Your task to perform on an android device: turn off improve location accuracy Image 0: 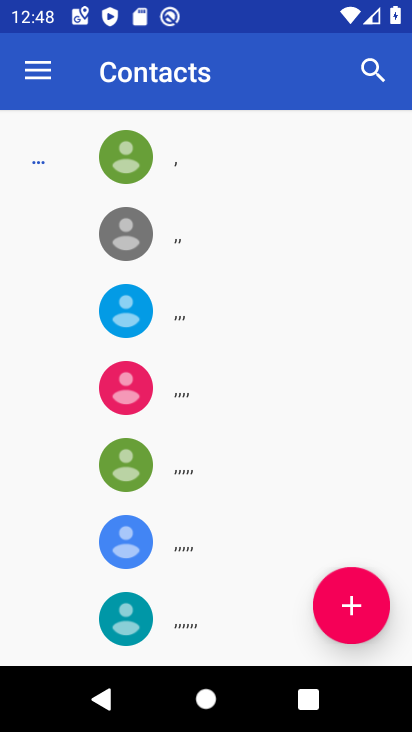
Step 0: press home button
Your task to perform on an android device: turn off improve location accuracy Image 1: 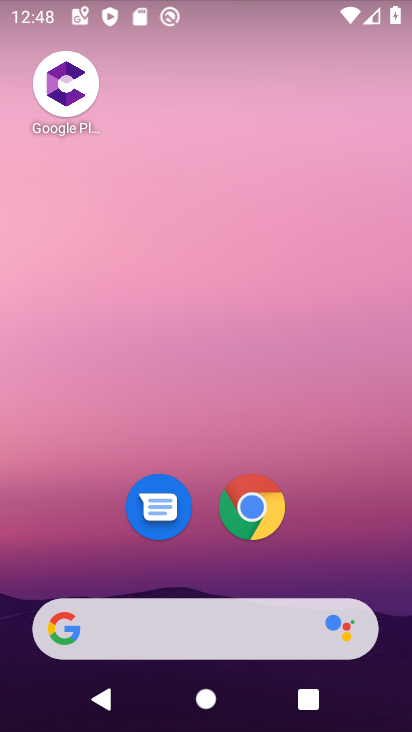
Step 1: drag from (396, 539) to (303, 48)
Your task to perform on an android device: turn off improve location accuracy Image 2: 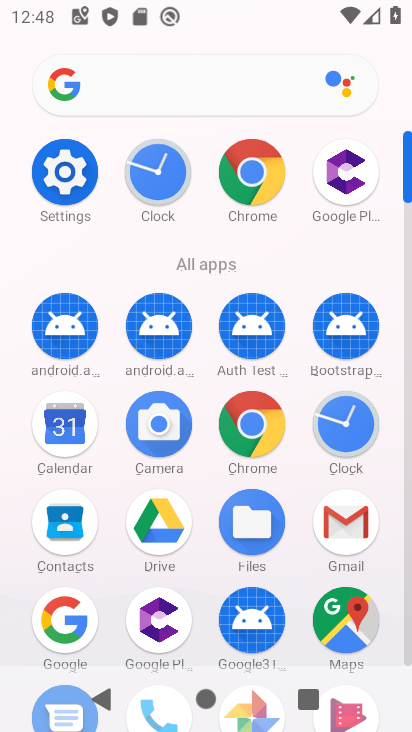
Step 2: click (73, 181)
Your task to perform on an android device: turn off improve location accuracy Image 3: 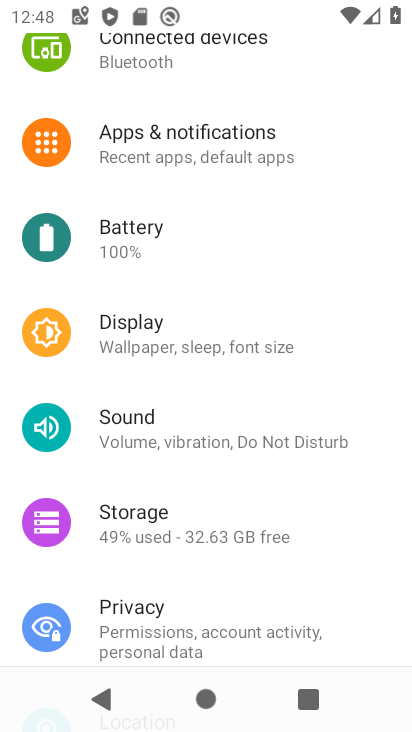
Step 3: drag from (233, 629) to (294, 128)
Your task to perform on an android device: turn off improve location accuracy Image 4: 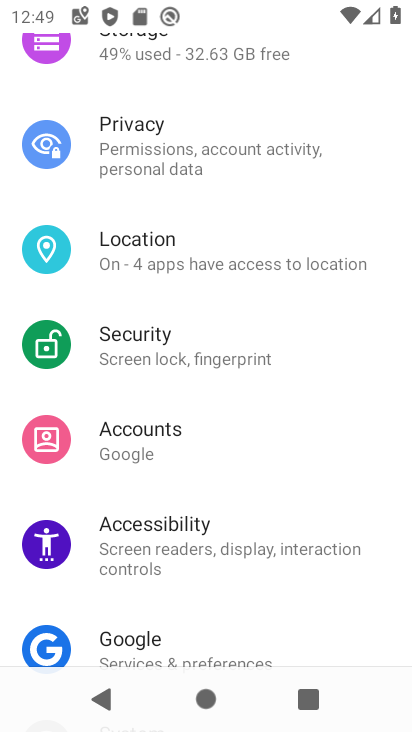
Step 4: drag from (225, 568) to (270, 89)
Your task to perform on an android device: turn off improve location accuracy Image 5: 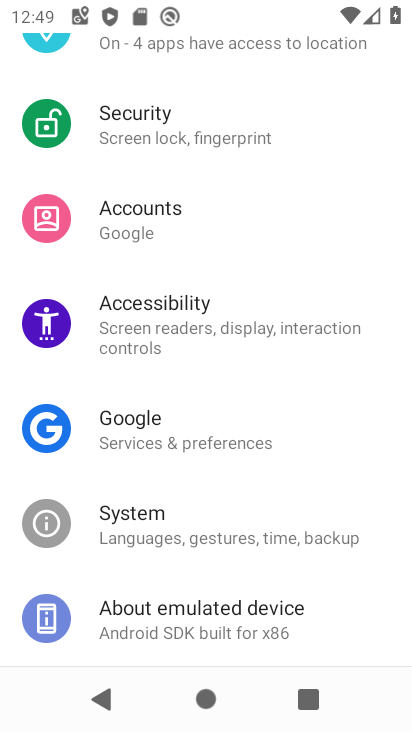
Step 5: drag from (307, 194) to (305, 587)
Your task to perform on an android device: turn off improve location accuracy Image 6: 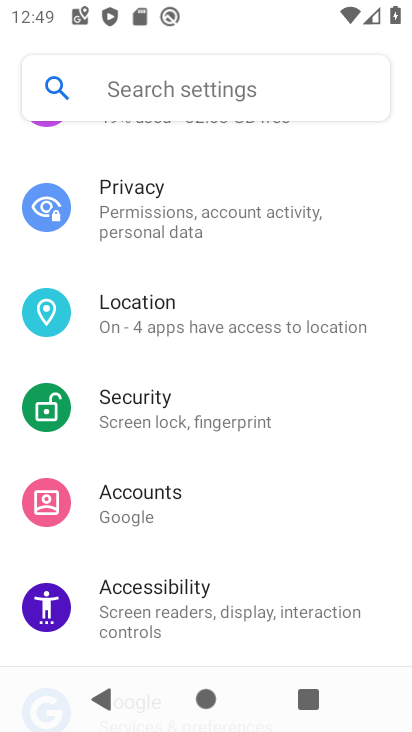
Step 6: click (228, 302)
Your task to perform on an android device: turn off improve location accuracy Image 7: 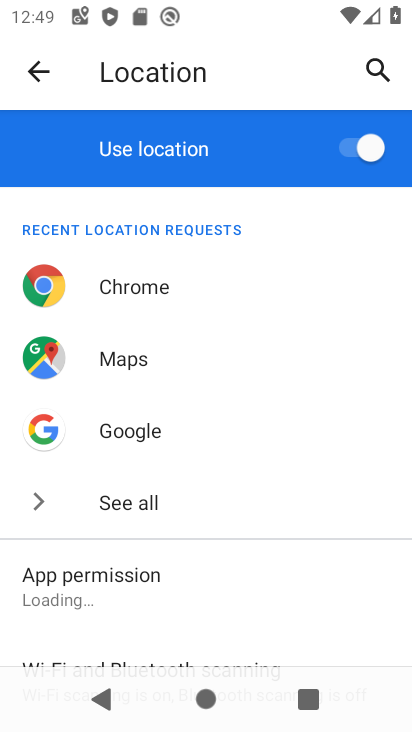
Step 7: drag from (266, 588) to (231, 157)
Your task to perform on an android device: turn off improve location accuracy Image 8: 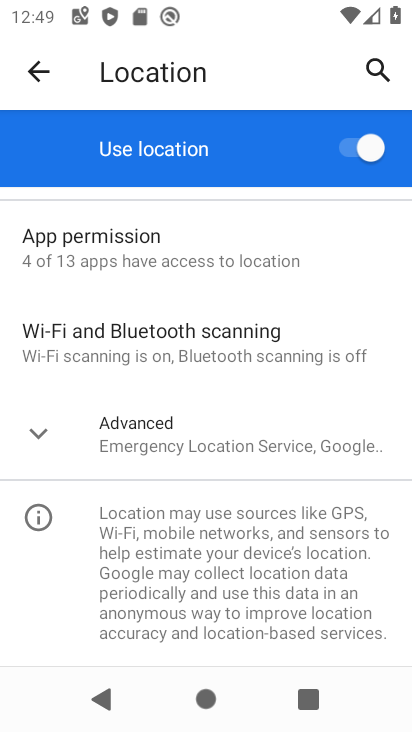
Step 8: click (182, 431)
Your task to perform on an android device: turn off improve location accuracy Image 9: 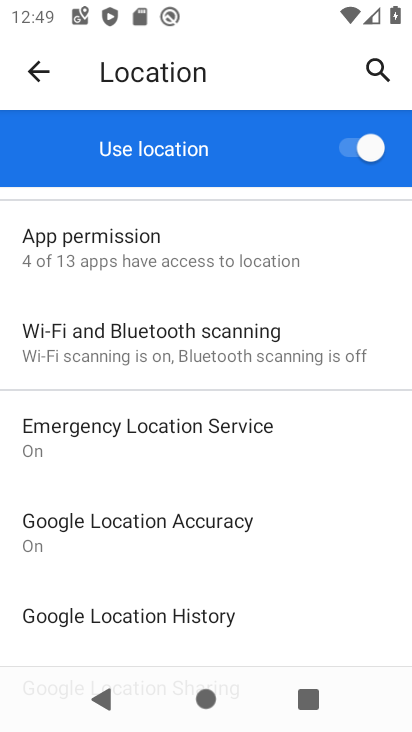
Step 9: click (226, 530)
Your task to perform on an android device: turn off improve location accuracy Image 10: 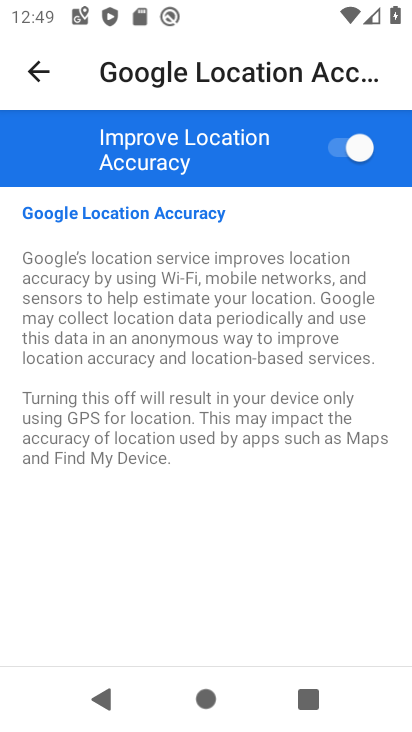
Step 10: click (251, 155)
Your task to perform on an android device: turn off improve location accuracy Image 11: 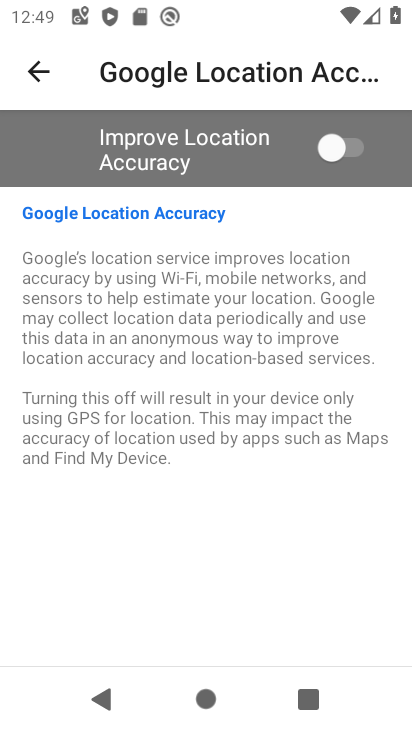
Step 11: task complete